Your task to perform on an android device: toggle airplane mode Image 0: 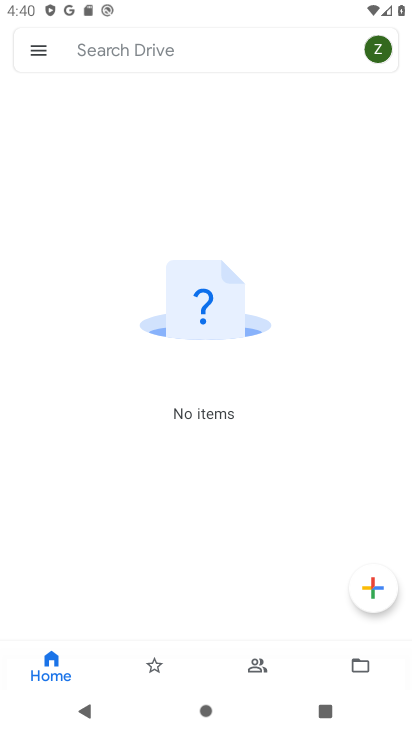
Step 0: drag from (329, 3) to (302, 449)
Your task to perform on an android device: toggle airplane mode Image 1: 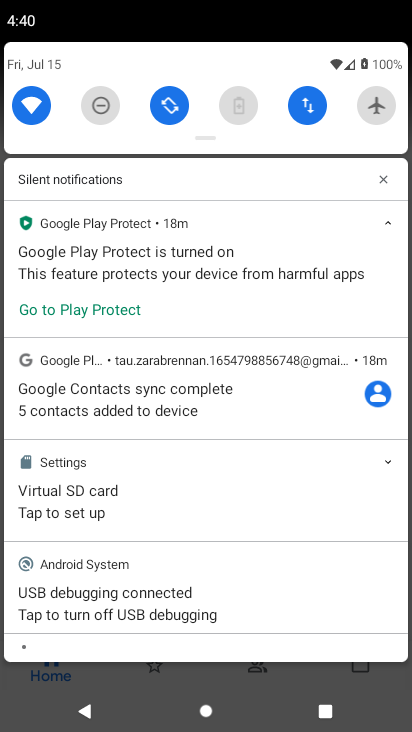
Step 1: click (372, 95)
Your task to perform on an android device: toggle airplane mode Image 2: 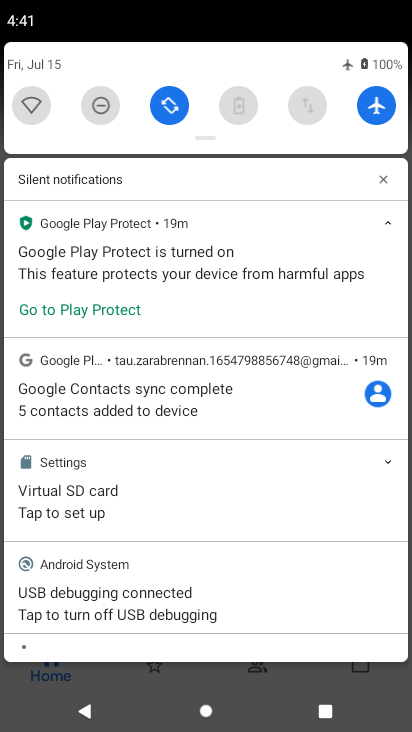
Step 2: task complete